Your task to perform on an android device: open app "Mercado Libre" (install if not already installed), go to login, and select forgot password Image 0: 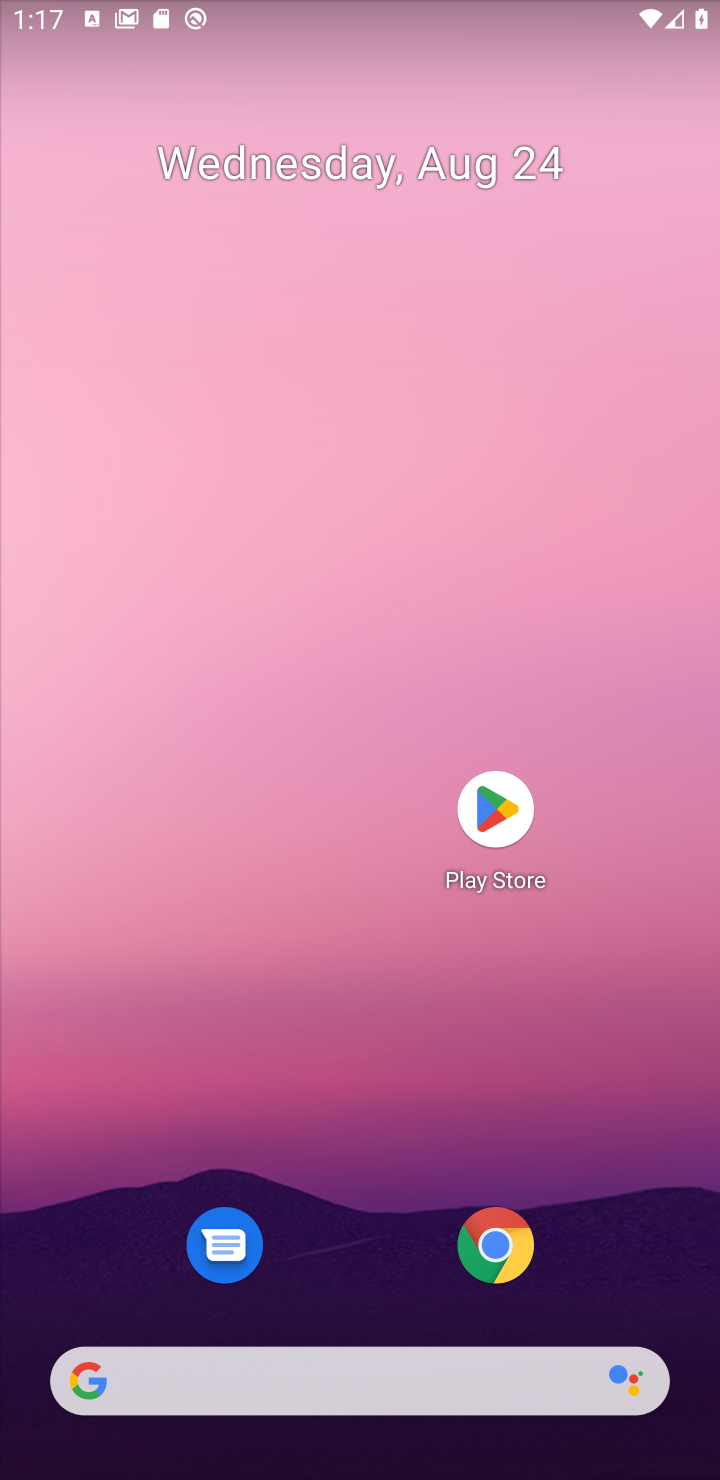
Step 0: click (520, 800)
Your task to perform on an android device: open app "Mercado Libre" (install if not already installed), go to login, and select forgot password Image 1: 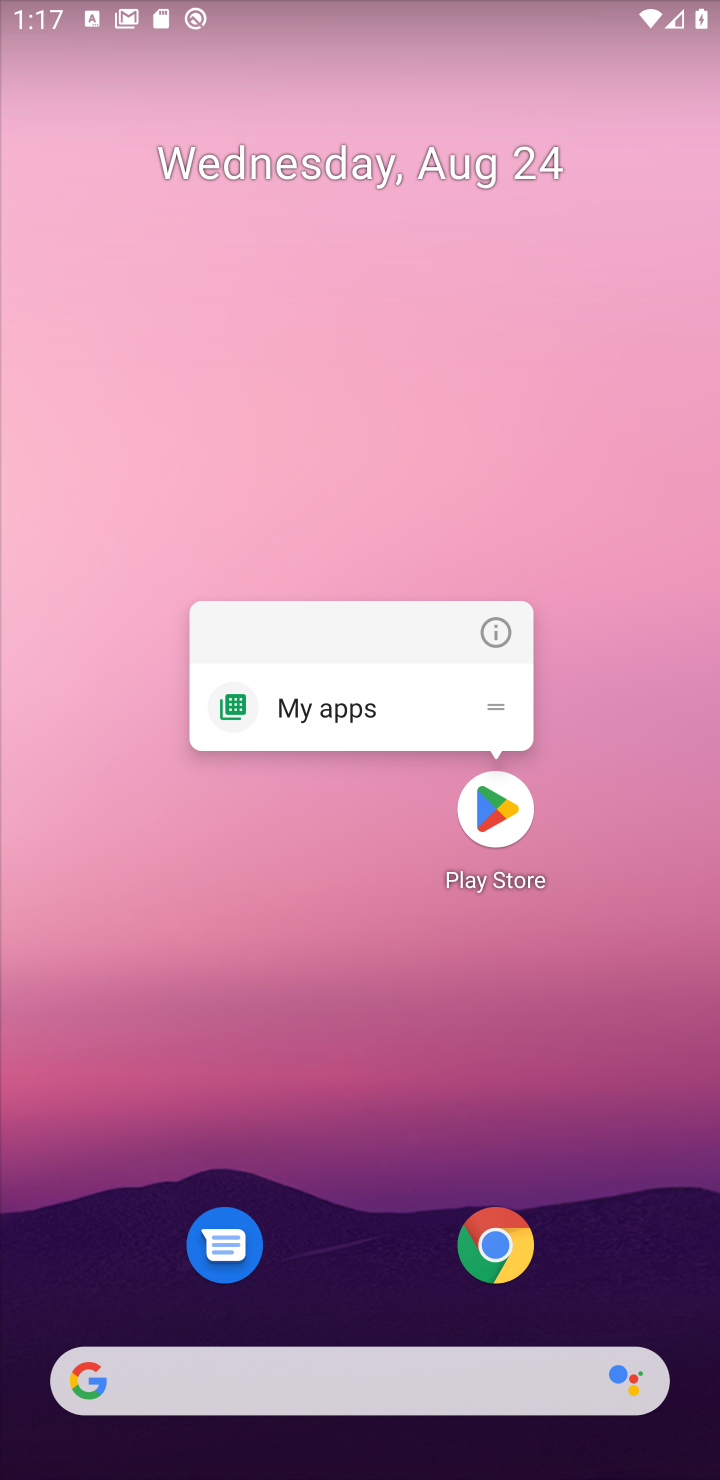
Step 1: click (488, 803)
Your task to perform on an android device: open app "Mercado Libre" (install if not already installed), go to login, and select forgot password Image 2: 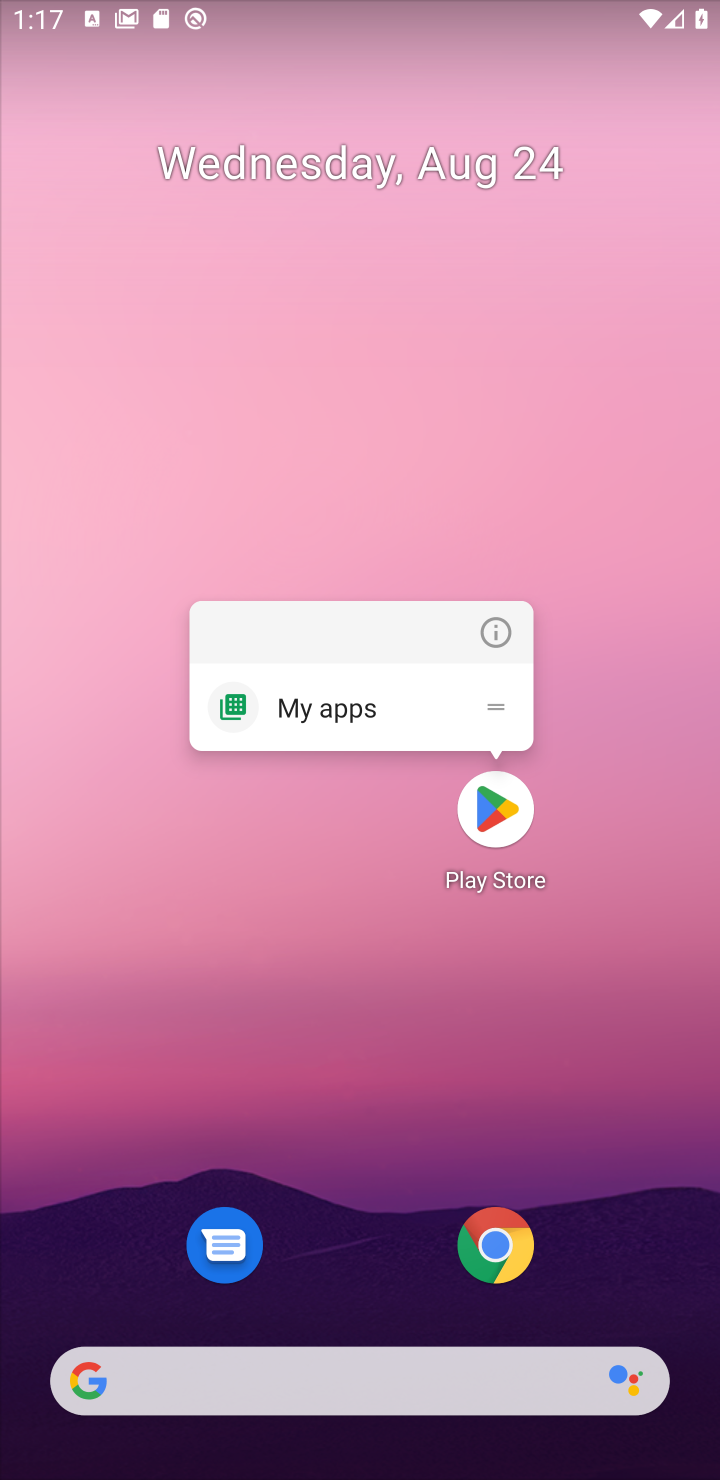
Step 2: click (496, 798)
Your task to perform on an android device: open app "Mercado Libre" (install if not already installed), go to login, and select forgot password Image 3: 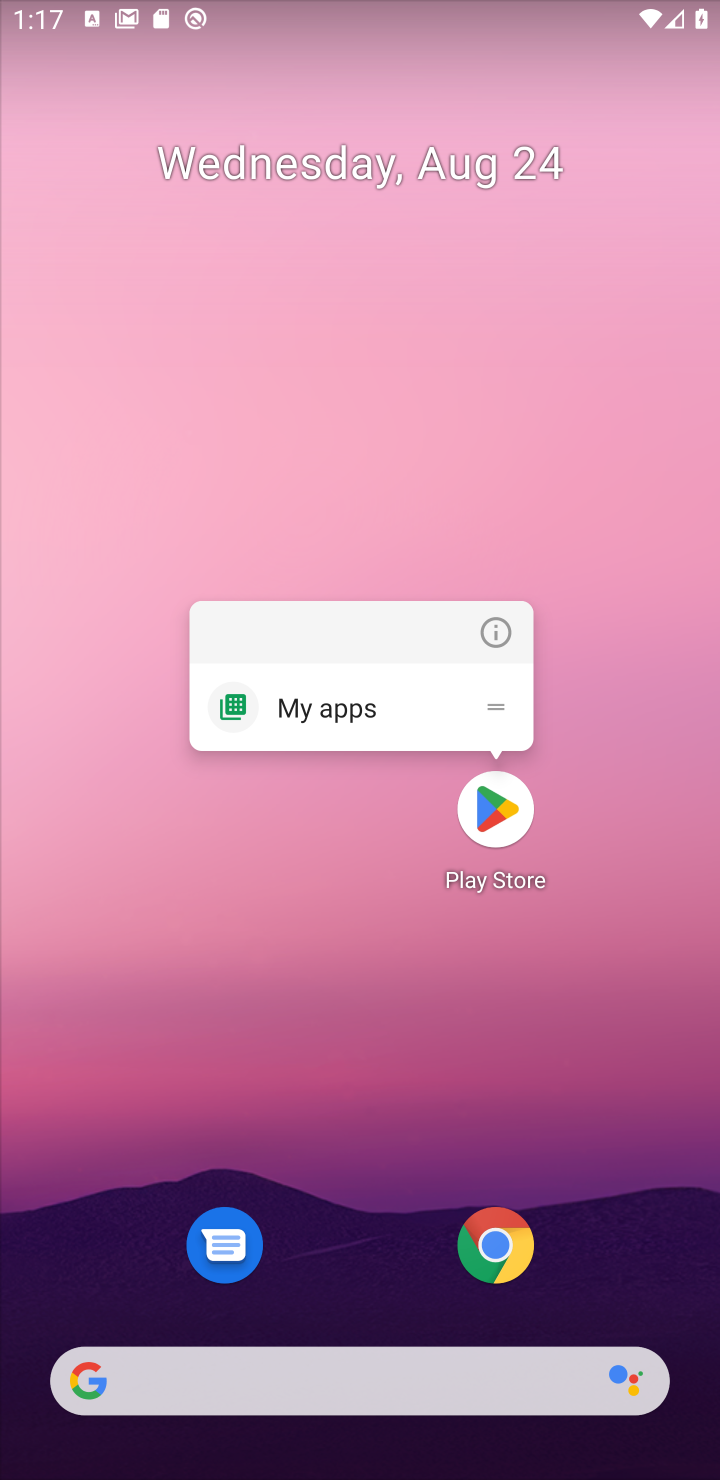
Step 3: click (496, 798)
Your task to perform on an android device: open app "Mercado Libre" (install if not already installed), go to login, and select forgot password Image 4: 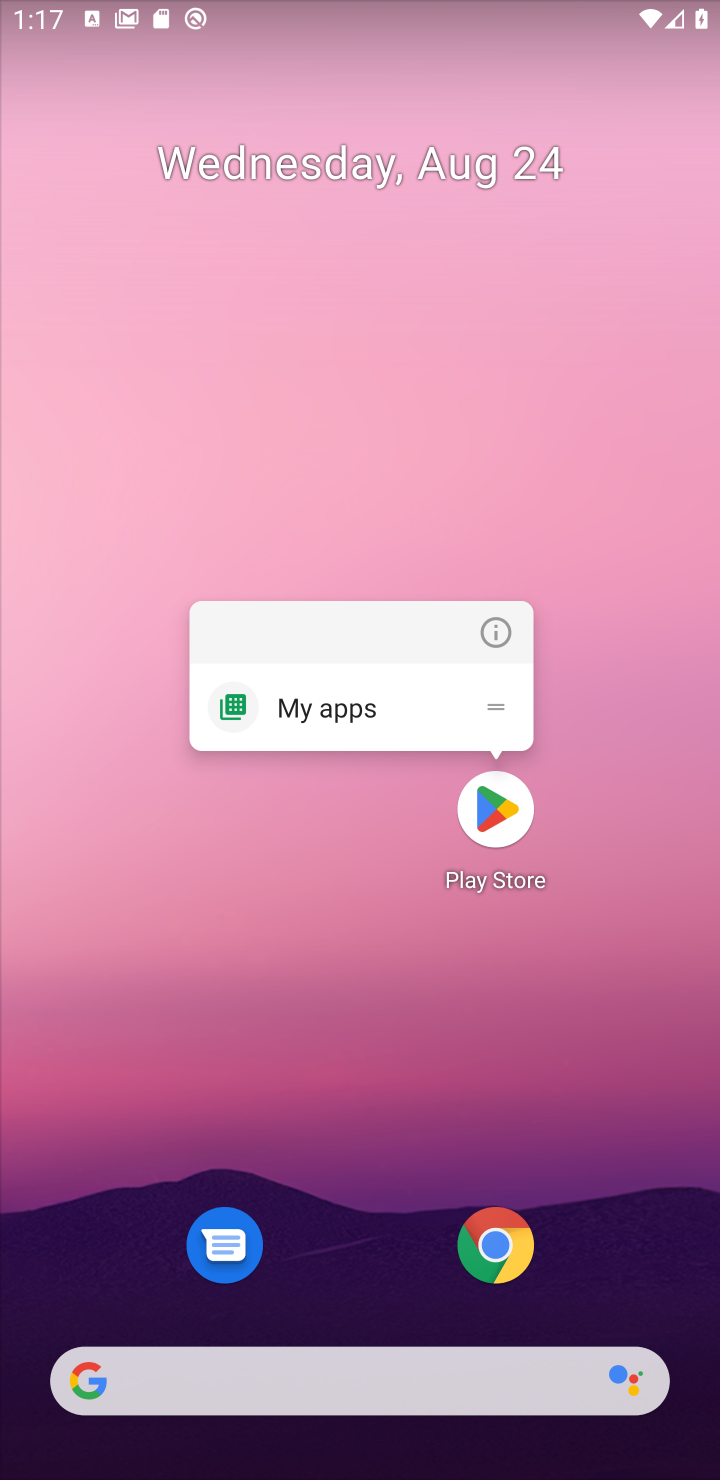
Step 4: click (507, 805)
Your task to perform on an android device: open app "Mercado Libre" (install if not already installed), go to login, and select forgot password Image 5: 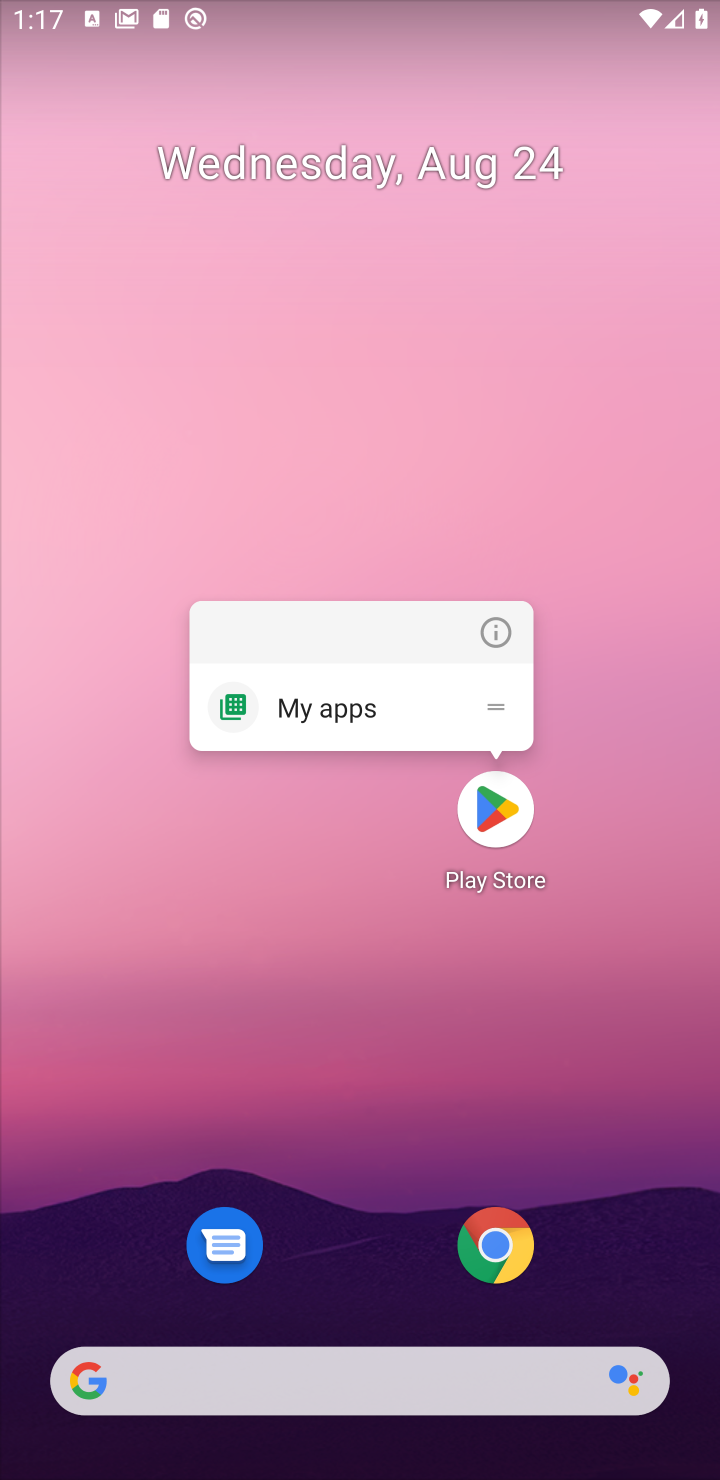
Step 5: click (491, 817)
Your task to perform on an android device: open app "Mercado Libre" (install if not already installed), go to login, and select forgot password Image 6: 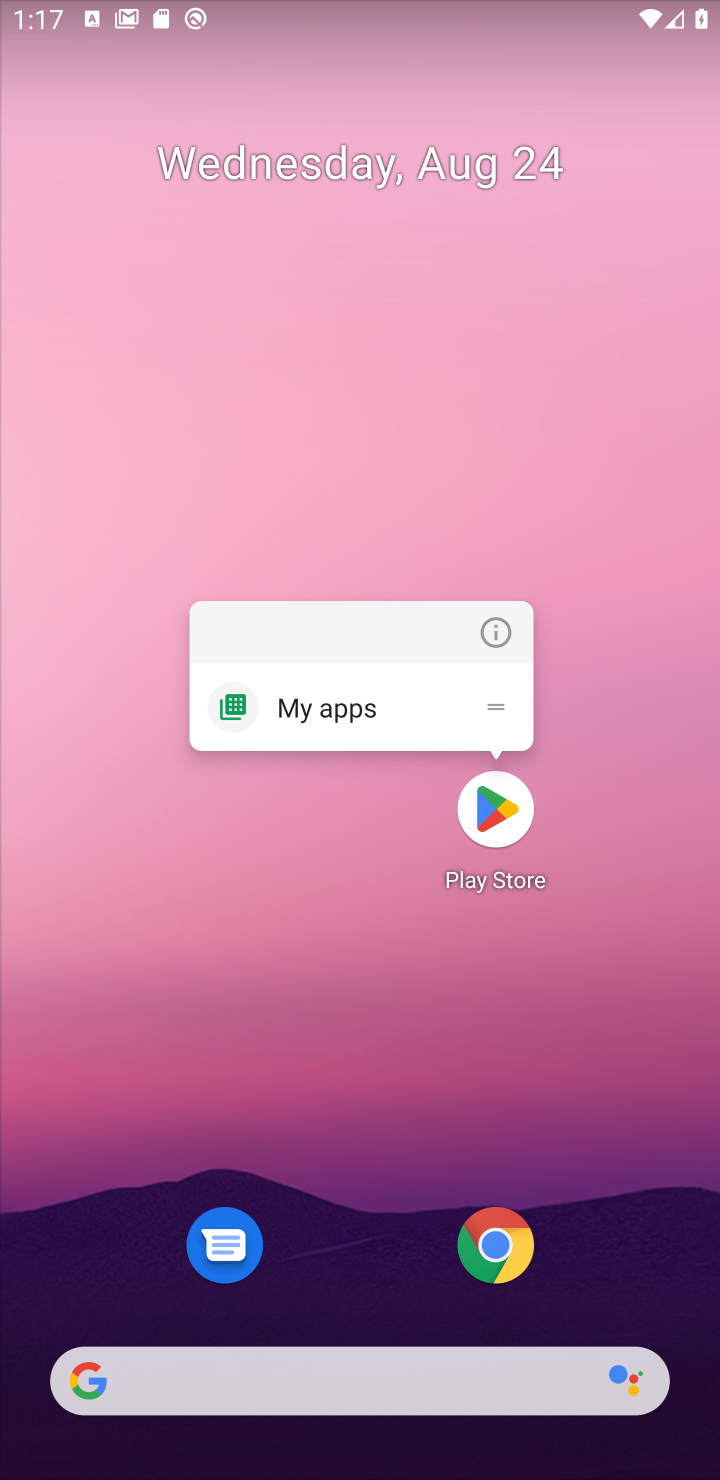
Step 6: click (523, 814)
Your task to perform on an android device: open app "Mercado Libre" (install if not already installed), go to login, and select forgot password Image 7: 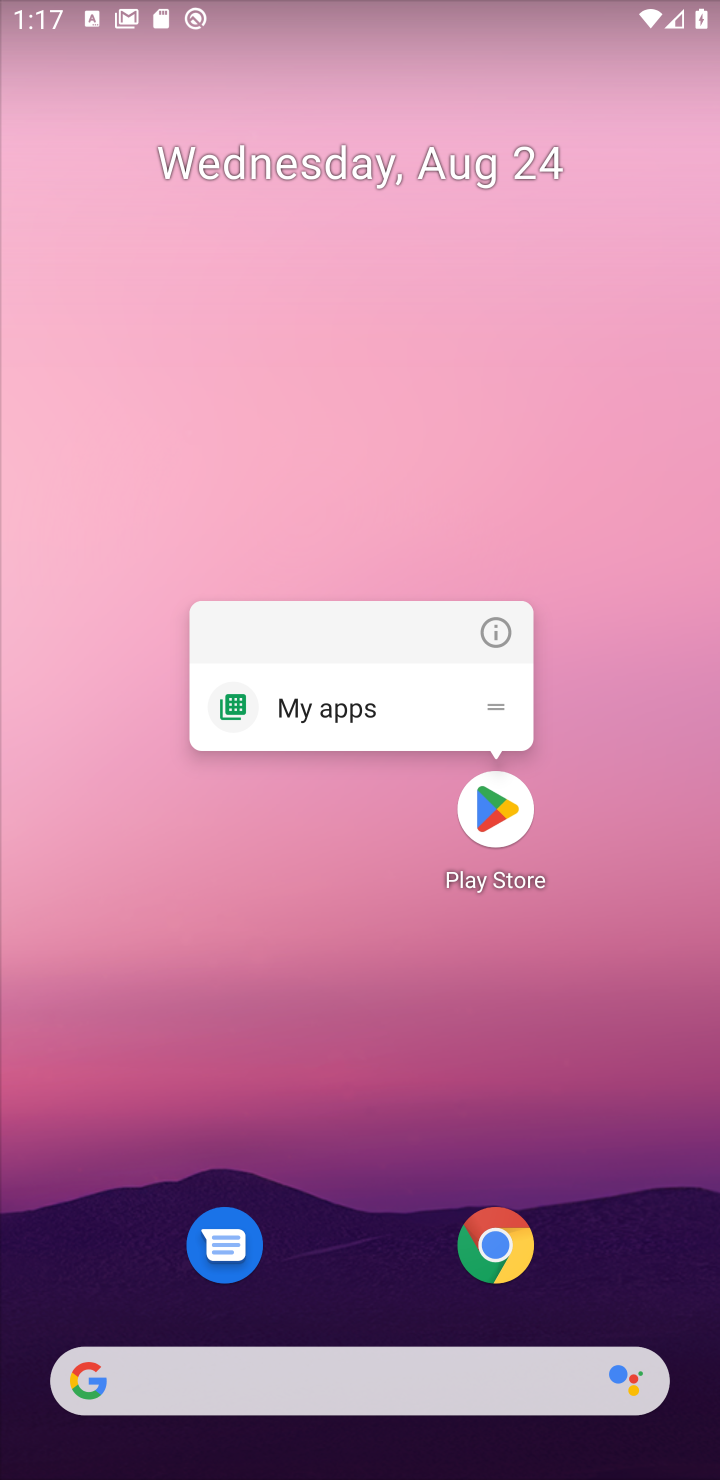
Step 7: click (529, 807)
Your task to perform on an android device: open app "Mercado Libre" (install if not already installed), go to login, and select forgot password Image 8: 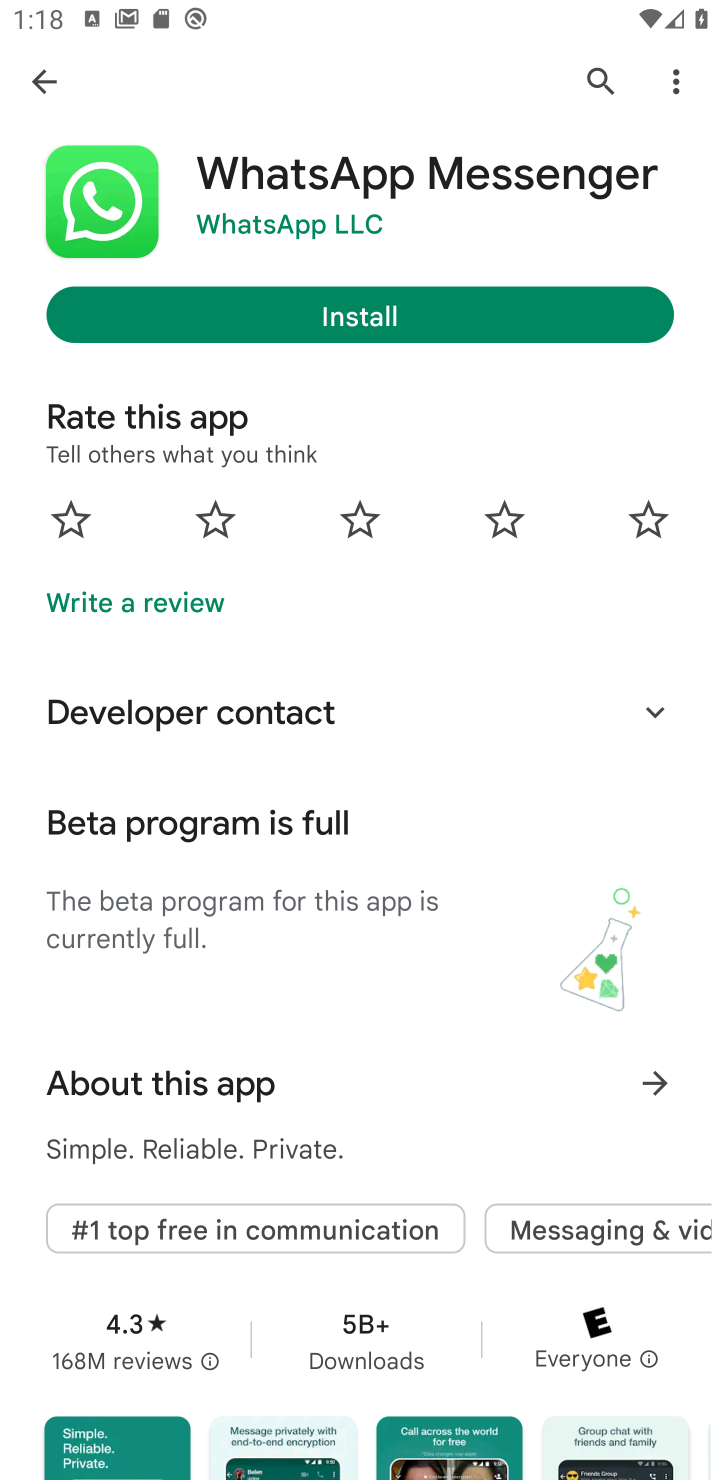
Step 8: click (598, 70)
Your task to perform on an android device: open app "Mercado Libre" (install if not already installed), go to login, and select forgot password Image 9: 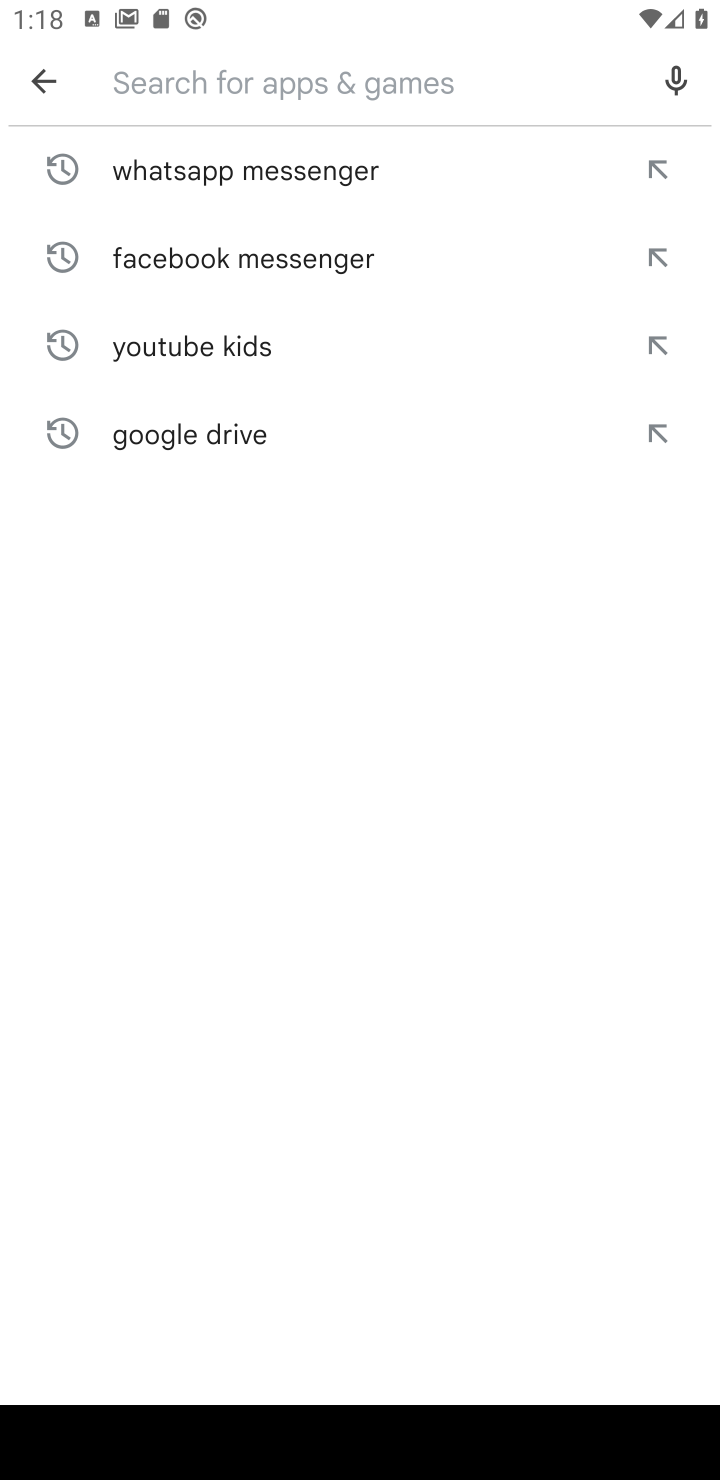
Step 9: type "Mercado Libre"
Your task to perform on an android device: open app "Mercado Libre" (install if not already installed), go to login, and select forgot password Image 10: 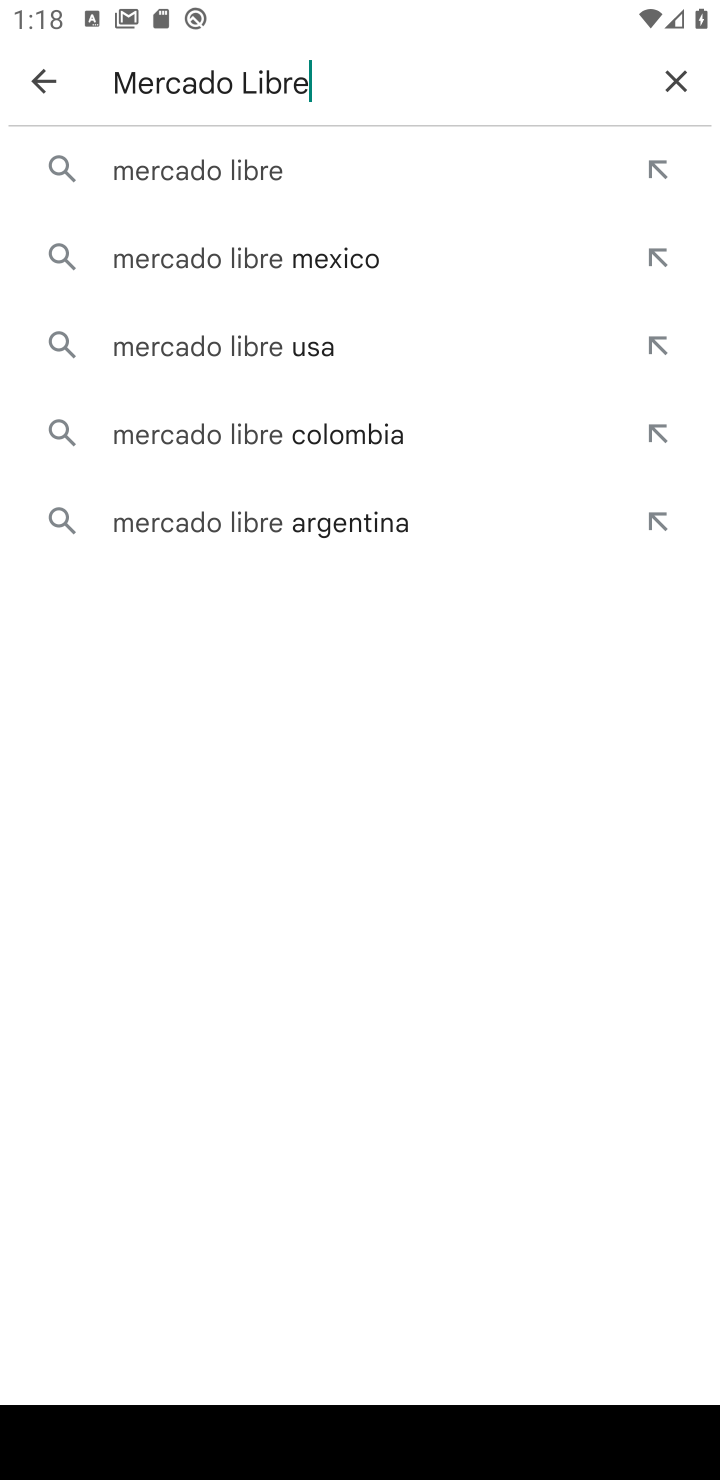
Step 10: click (271, 147)
Your task to perform on an android device: open app "Mercado Libre" (install if not already installed), go to login, and select forgot password Image 11: 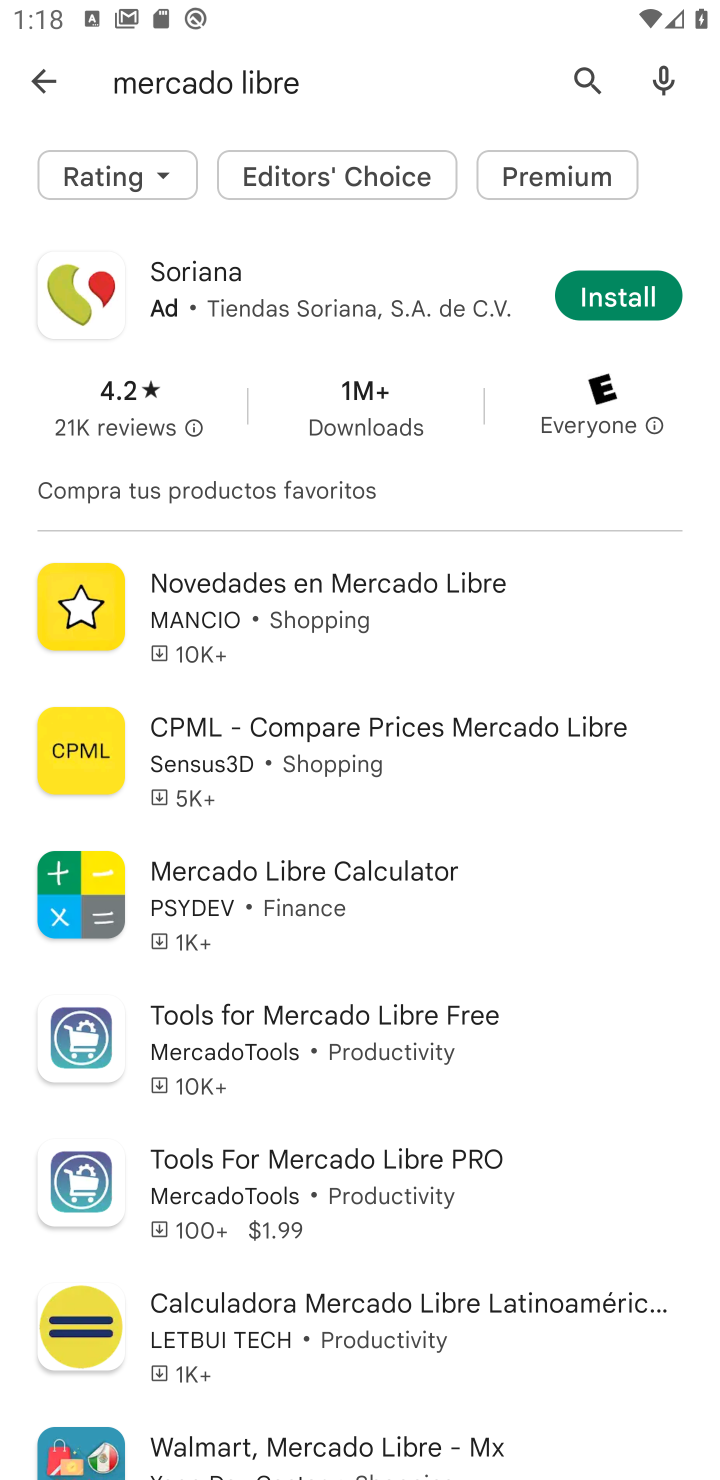
Step 11: task complete